Your task to perform on an android device: Go to wifi settings Image 0: 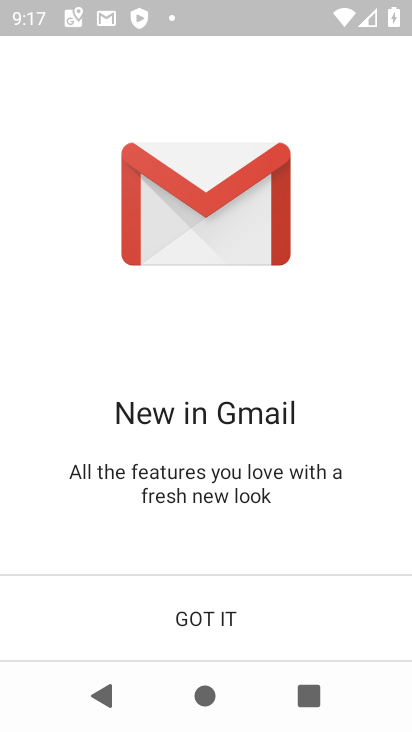
Step 0: press home button
Your task to perform on an android device: Go to wifi settings Image 1: 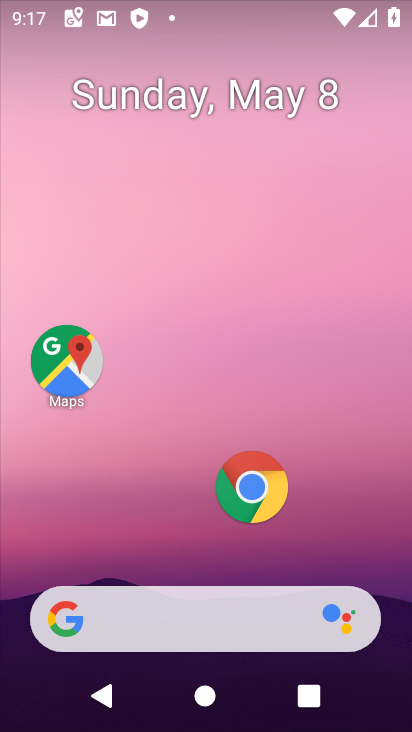
Step 1: drag from (151, 495) to (126, 65)
Your task to perform on an android device: Go to wifi settings Image 2: 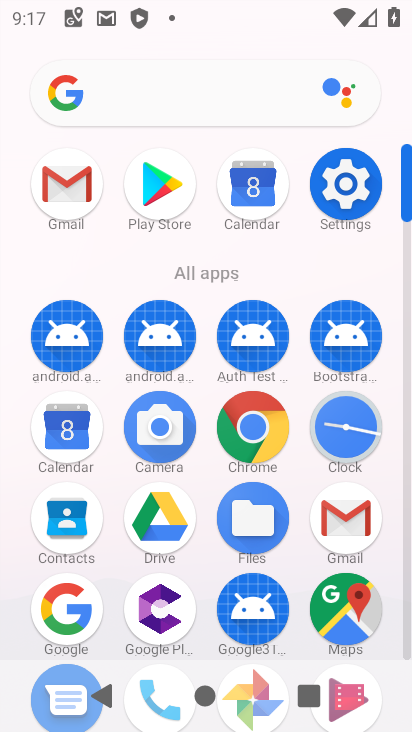
Step 2: click (329, 178)
Your task to perform on an android device: Go to wifi settings Image 3: 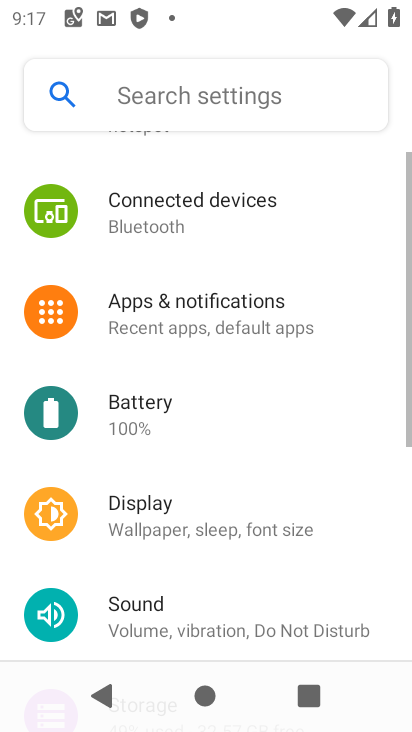
Step 3: drag from (247, 284) to (301, 592)
Your task to perform on an android device: Go to wifi settings Image 4: 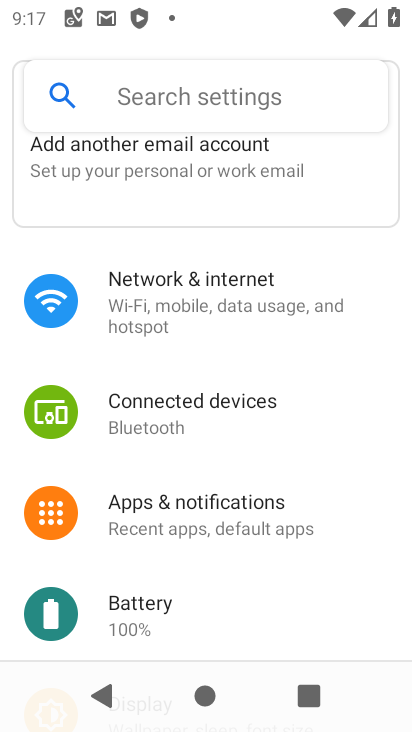
Step 4: click (239, 296)
Your task to perform on an android device: Go to wifi settings Image 5: 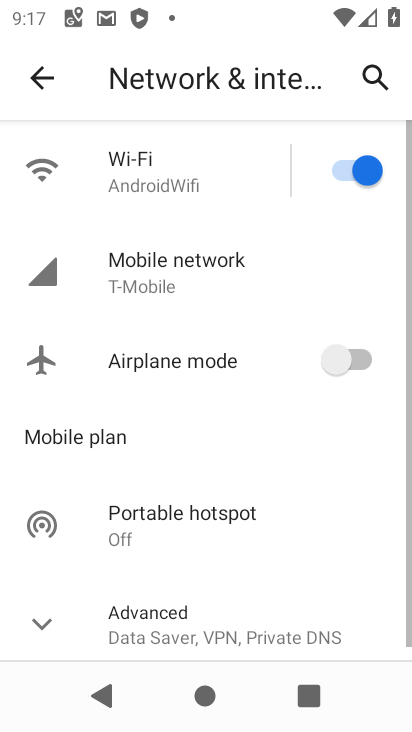
Step 5: click (224, 164)
Your task to perform on an android device: Go to wifi settings Image 6: 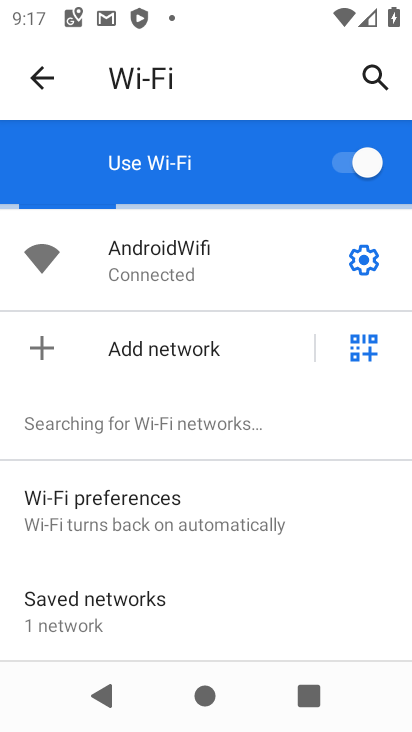
Step 6: task complete